Your task to perform on an android device: Open Android settings Image 0: 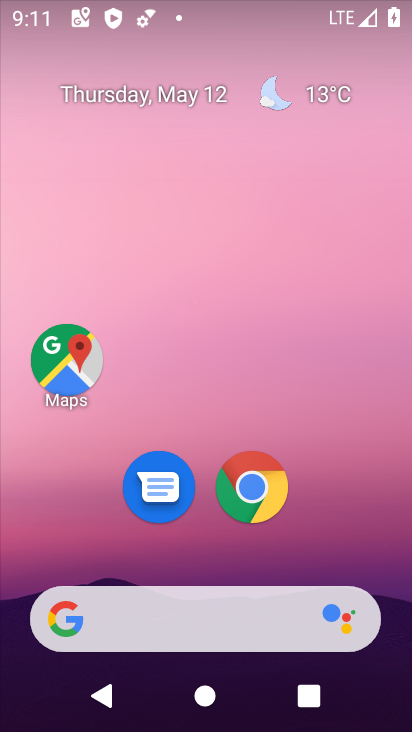
Step 0: drag from (353, 550) to (250, 0)
Your task to perform on an android device: Open Android settings Image 1: 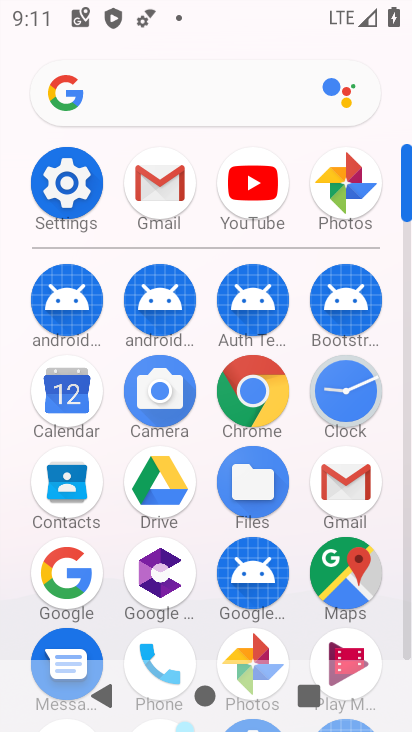
Step 1: click (65, 190)
Your task to perform on an android device: Open Android settings Image 2: 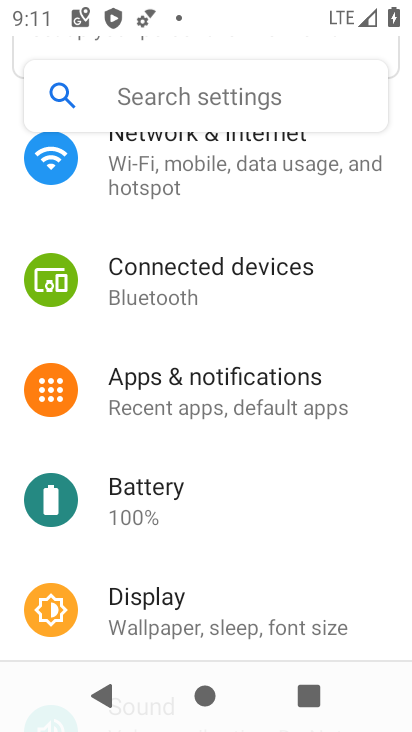
Step 2: task complete